Your task to perform on an android device: check data usage Image 0: 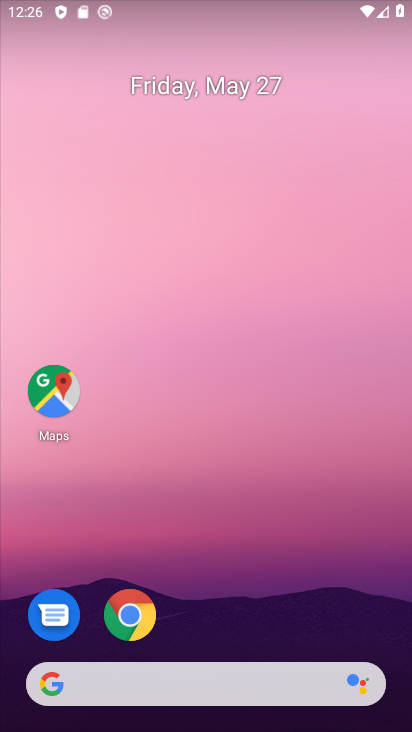
Step 0: drag from (255, 603) to (290, 103)
Your task to perform on an android device: check data usage Image 1: 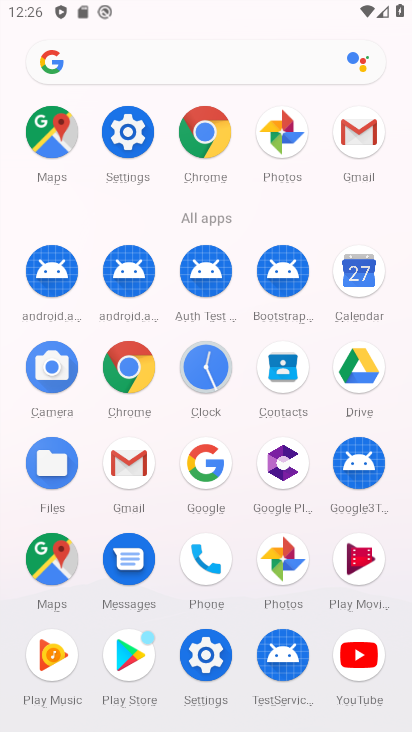
Step 1: click (195, 660)
Your task to perform on an android device: check data usage Image 2: 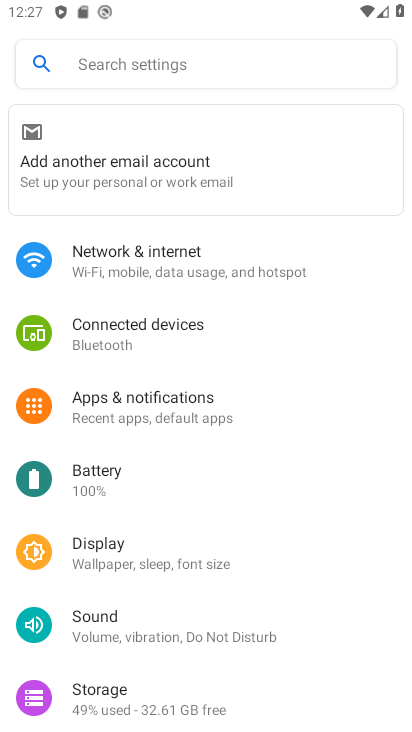
Step 2: drag from (198, 618) to (263, 632)
Your task to perform on an android device: check data usage Image 3: 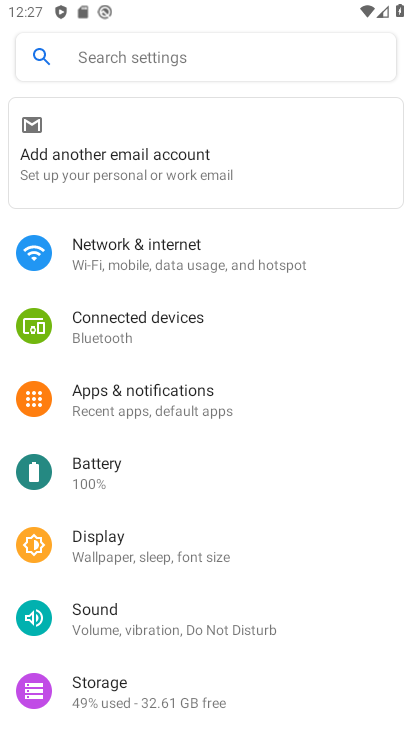
Step 3: click (204, 275)
Your task to perform on an android device: check data usage Image 4: 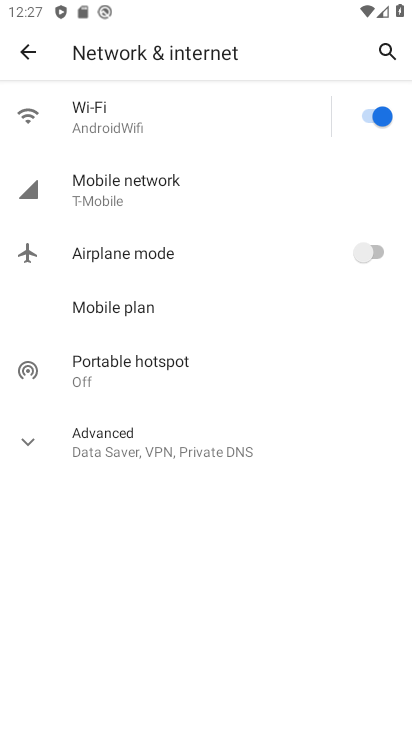
Step 4: click (181, 199)
Your task to perform on an android device: check data usage Image 5: 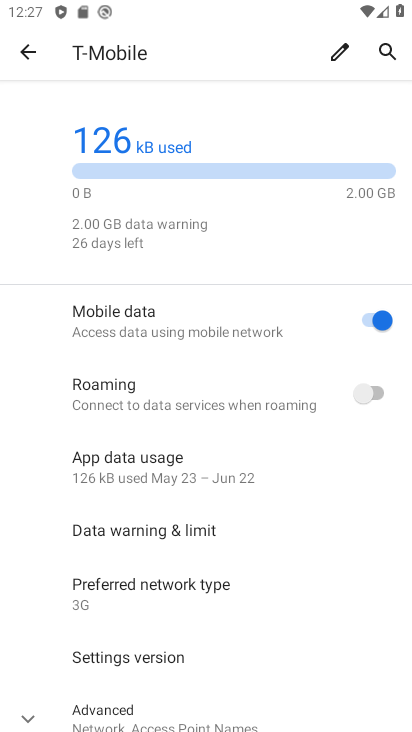
Step 5: click (219, 472)
Your task to perform on an android device: check data usage Image 6: 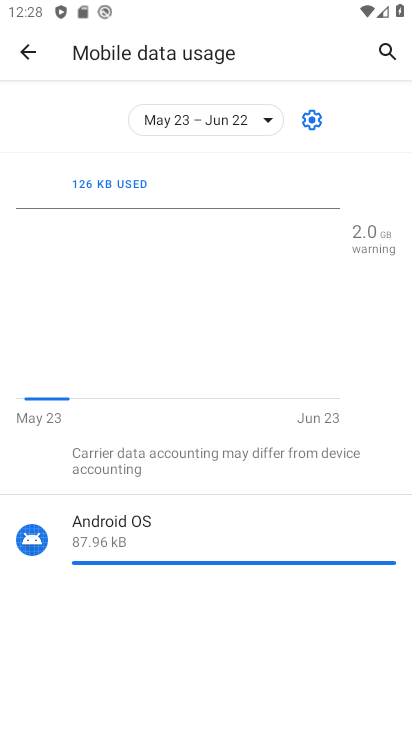
Step 6: task complete